Your task to perform on an android device: empty trash in google photos Image 0: 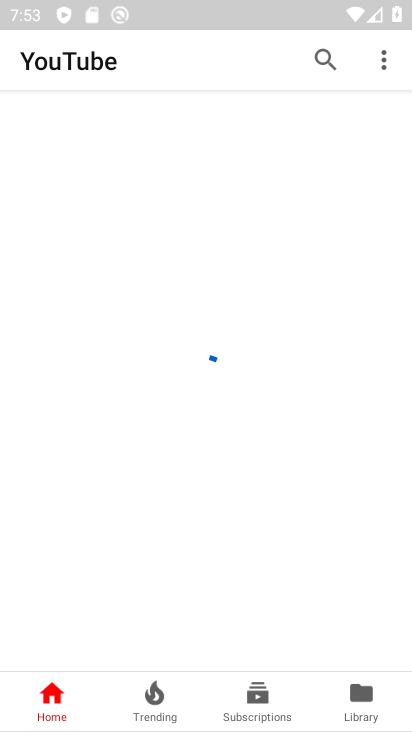
Step 0: drag from (213, 616) to (224, 117)
Your task to perform on an android device: empty trash in google photos Image 1: 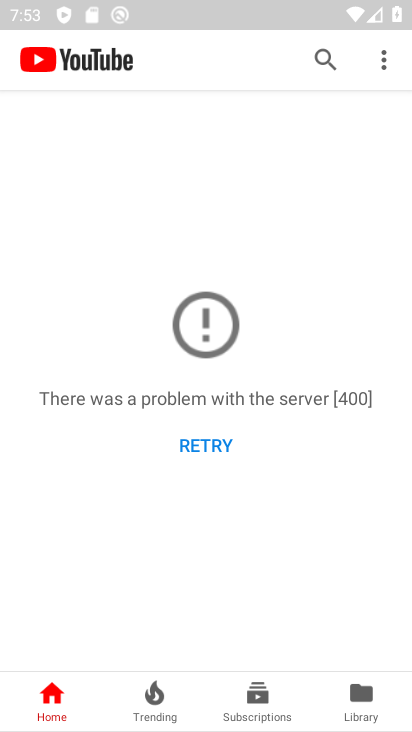
Step 1: press home button
Your task to perform on an android device: empty trash in google photos Image 2: 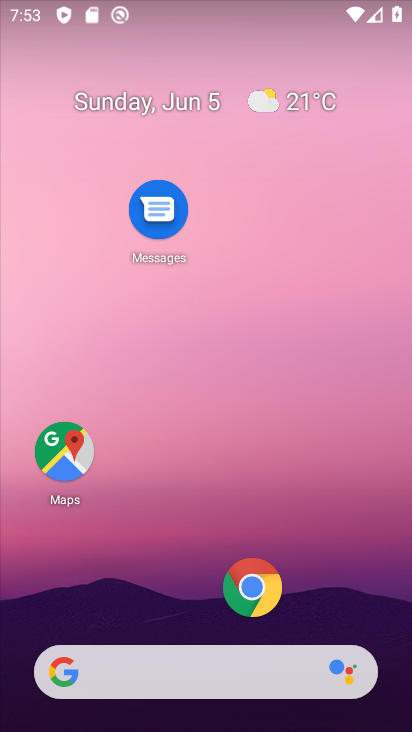
Step 2: drag from (328, 625) to (341, 55)
Your task to perform on an android device: empty trash in google photos Image 3: 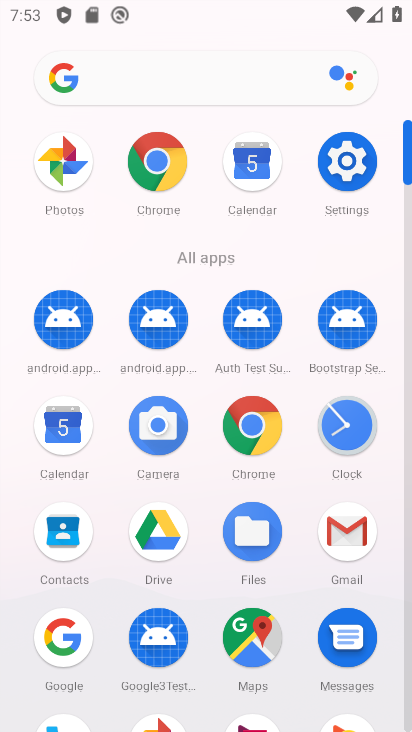
Step 3: drag from (203, 587) to (217, 135)
Your task to perform on an android device: empty trash in google photos Image 4: 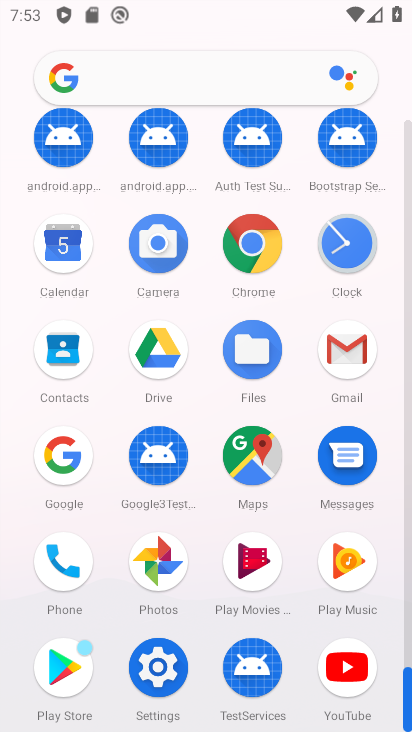
Step 4: click (155, 551)
Your task to perform on an android device: empty trash in google photos Image 5: 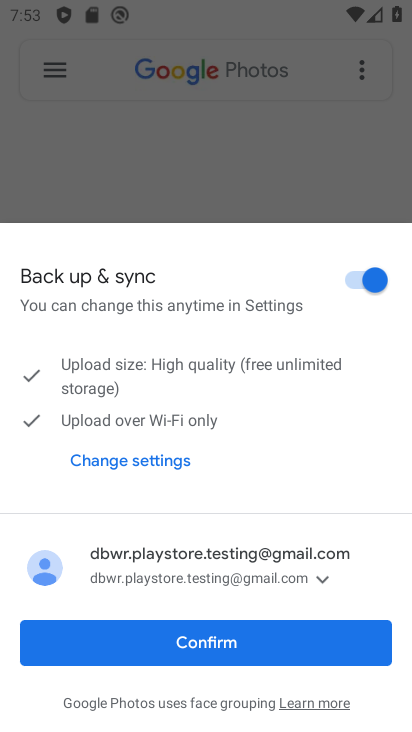
Step 5: click (203, 633)
Your task to perform on an android device: empty trash in google photos Image 6: 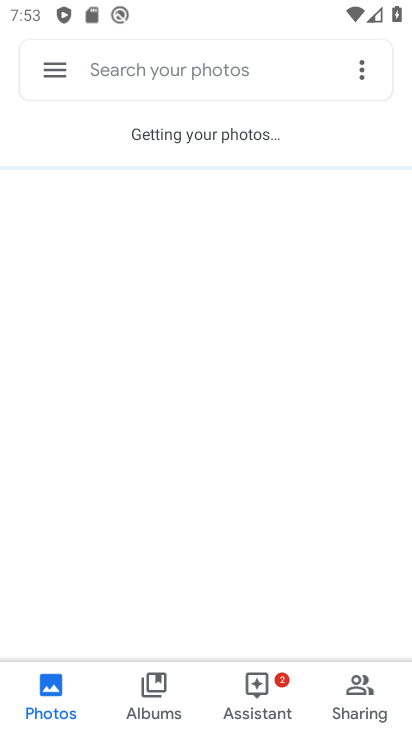
Step 6: click (52, 69)
Your task to perform on an android device: empty trash in google photos Image 7: 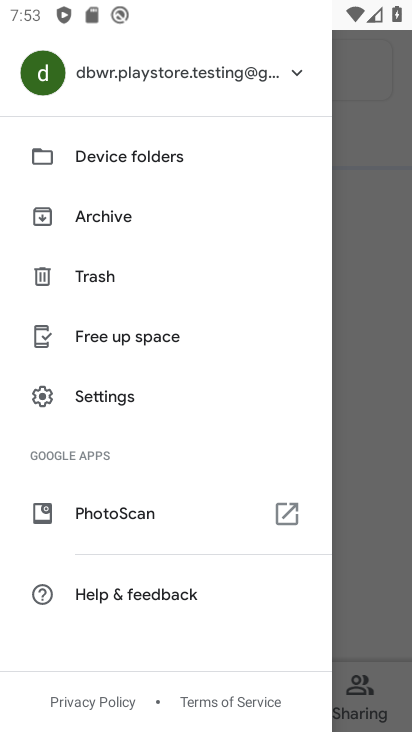
Step 7: click (381, 426)
Your task to perform on an android device: empty trash in google photos Image 8: 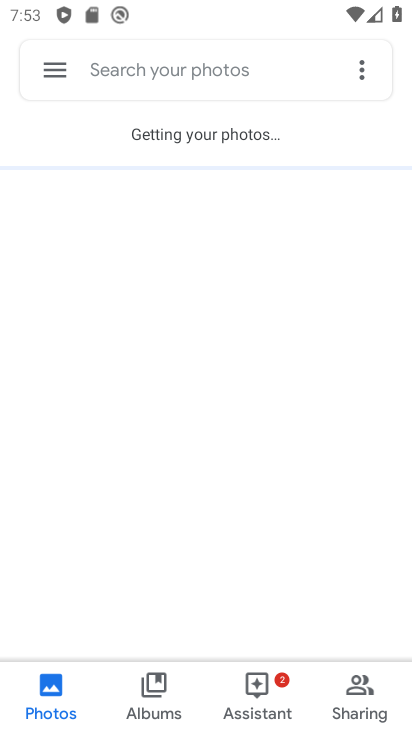
Step 8: click (358, 688)
Your task to perform on an android device: empty trash in google photos Image 9: 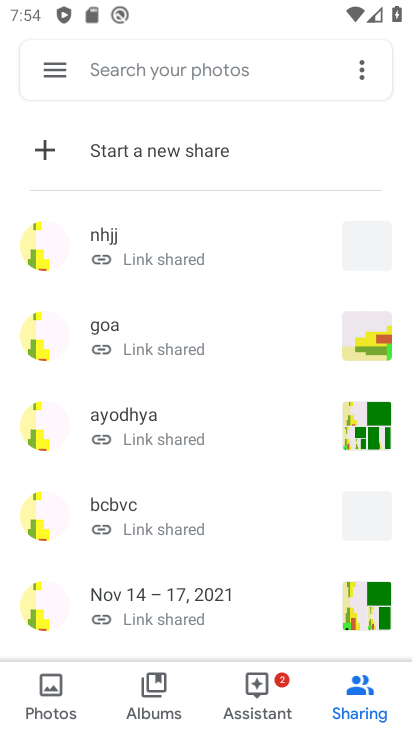
Step 9: click (58, 66)
Your task to perform on an android device: empty trash in google photos Image 10: 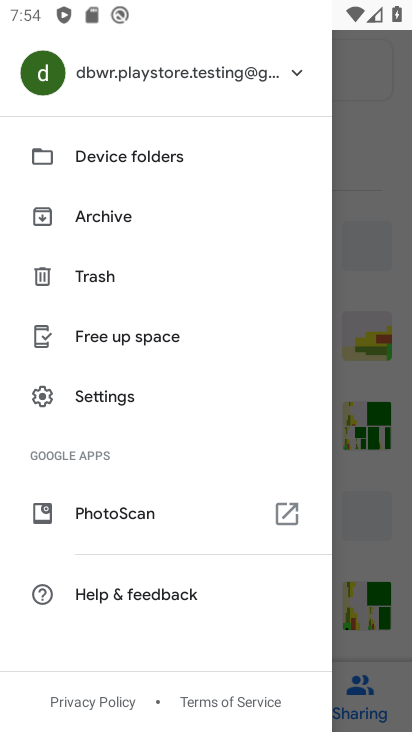
Step 10: click (124, 271)
Your task to perform on an android device: empty trash in google photos Image 11: 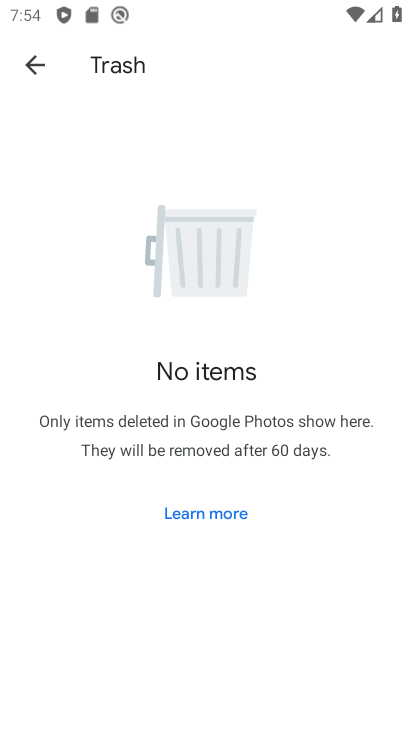
Step 11: task complete